Your task to perform on an android device: turn off improve location accuracy Image 0: 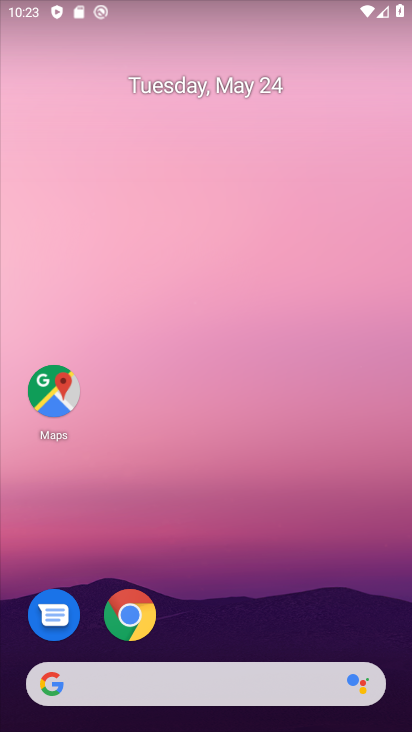
Step 0: drag from (248, 533) to (237, 100)
Your task to perform on an android device: turn off improve location accuracy Image 1: 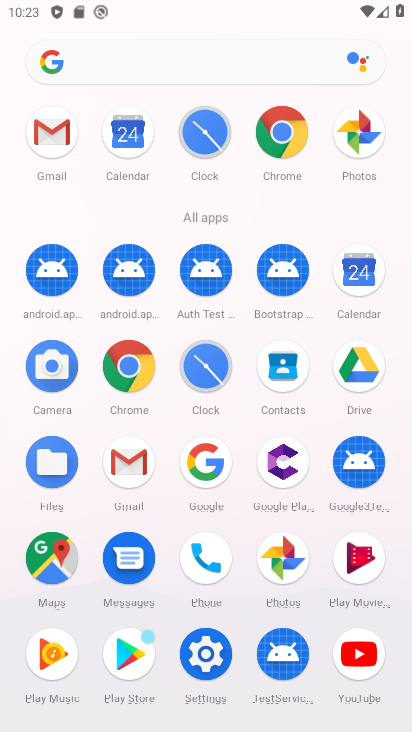
Step 1: click (190, 645)
Your task to perform on an android device: turn off improve location accuracy Image 2: 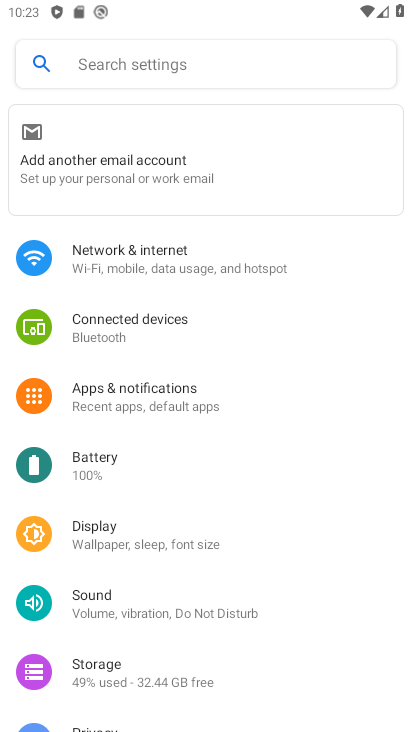
Step 2: drag from (237, 638) to (267, 301)
Your task to perform on an android device: turn off improve location accuracy Image 3: 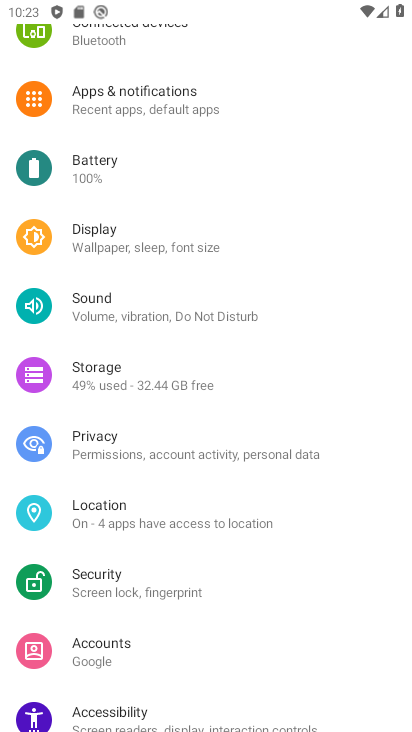
Step 3: click (188, 510)
Your task to perform on an android device: turn off improve location accuracy Image 4: 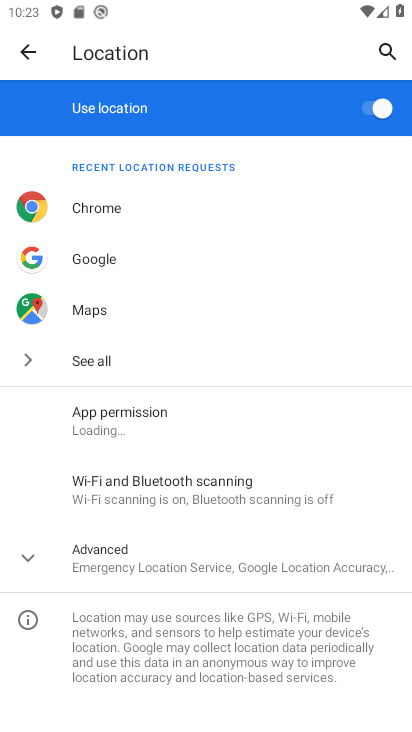
Step 4: click (217, 553)
Your task to perform on an android device: turn off improve location accuracy Image 5: 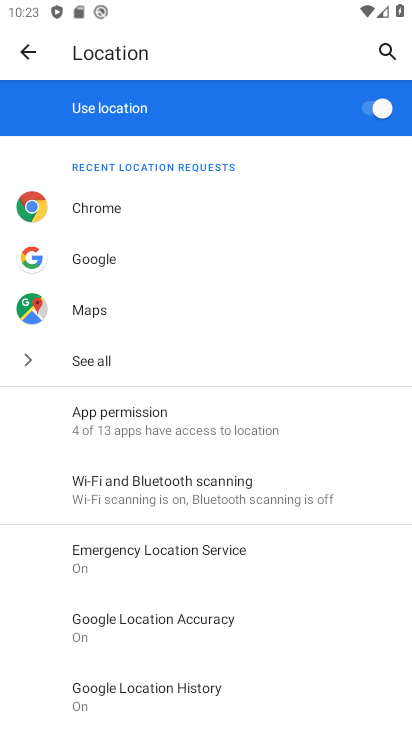
Step 5: click (172, 615)
Your task to perform on an android device: turn off improve location accuracy Image 6: 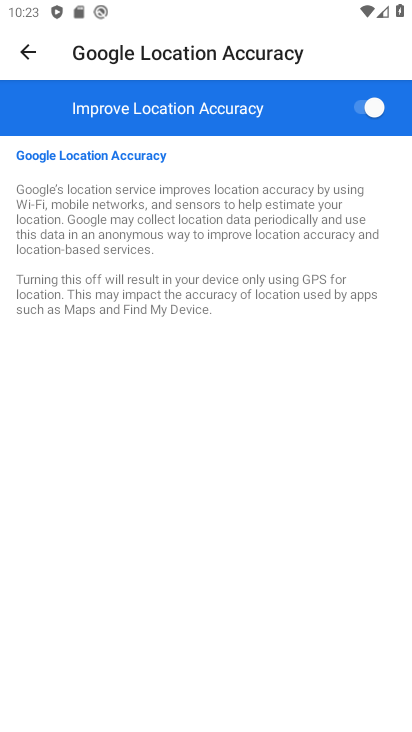
Step 6: click (383, 105)
Your task to perform on an android device: turn off improve location accuracy Image 7: 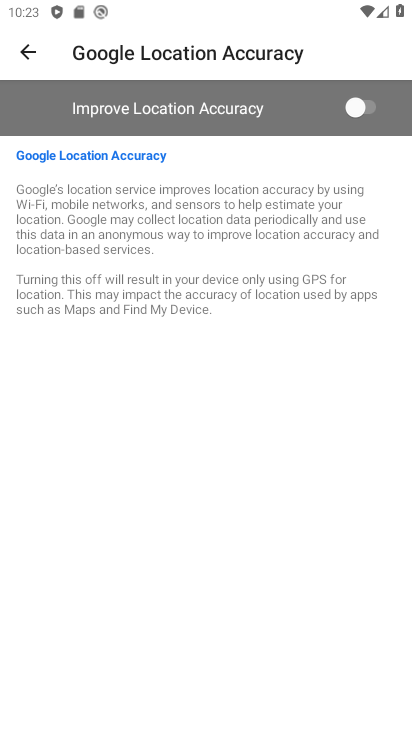
Step 7: task complete